Your task to perform on an android device: Go to Amazon Image 0: 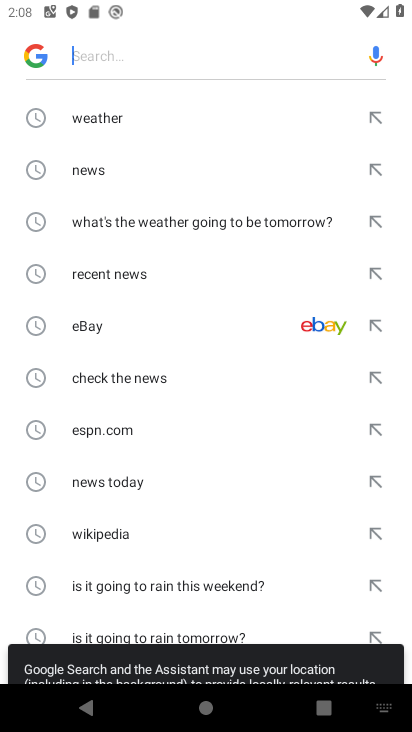
Step 0: press home button
Your task to perform on an android device: Go to Amazon Image 1: 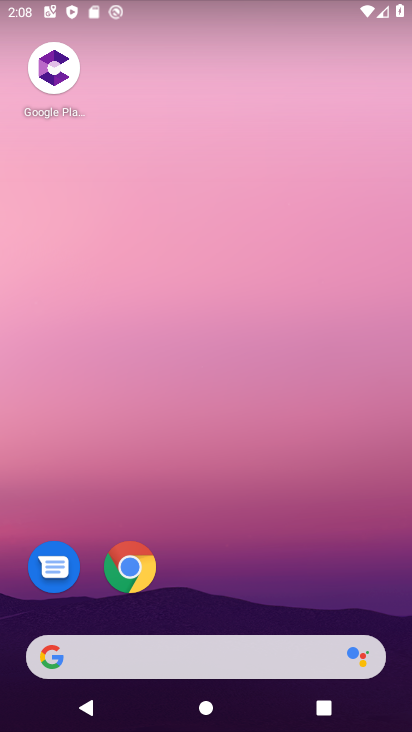
Step 1: click (142, 568)
Your task to perform on an android device: Go to Amazon Image 2: 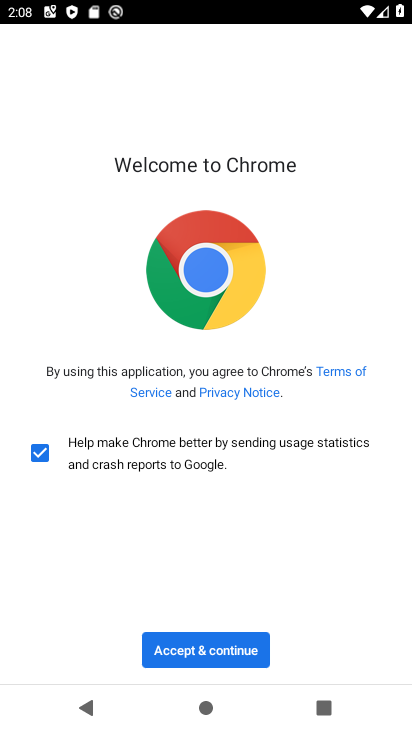
Step 2: click (189, 652)
Your task to perform on an android device: Go to Amazon Image 3: 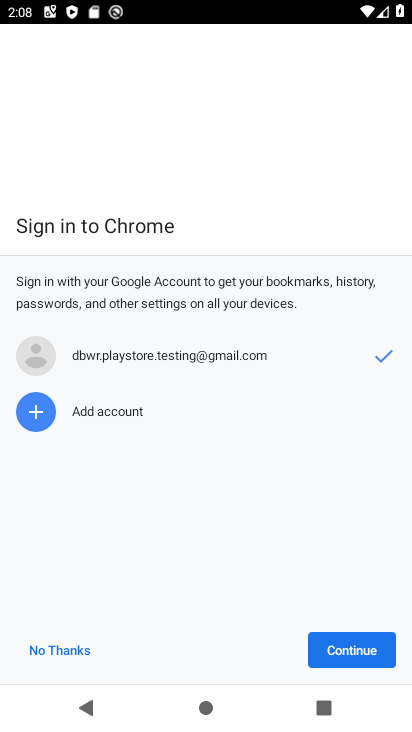
Step 3: click (334, 655)
Your task to perform on an android device: Go to Amazon Image 4: 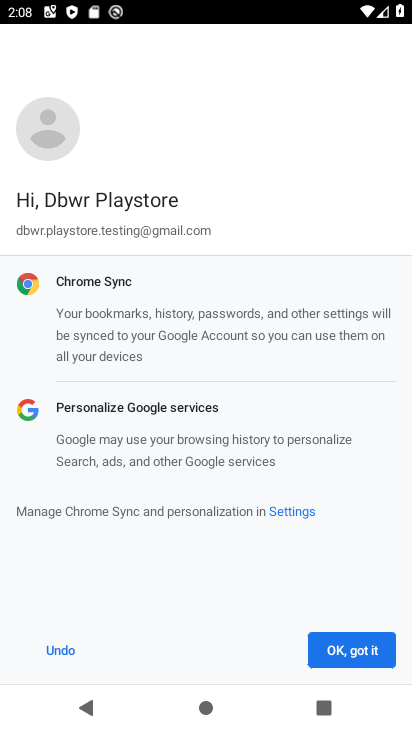
Step 4: click (336, 655)
Your task to perform on an android device: Go to Amazon Image 5: 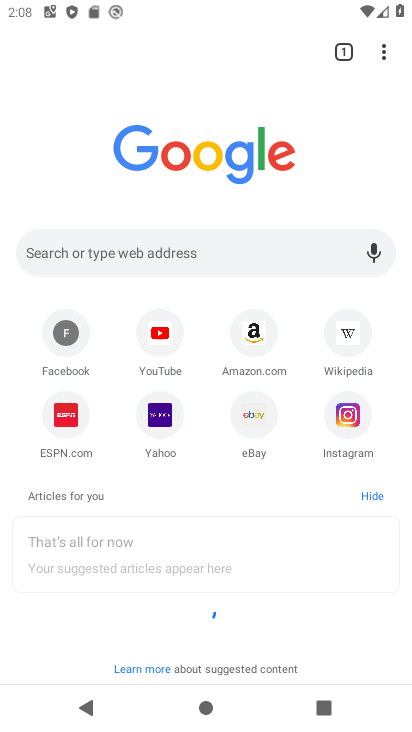
Step 5: click (262, 352)
Your task to perform on an android device: Go to Amazon Image 6: 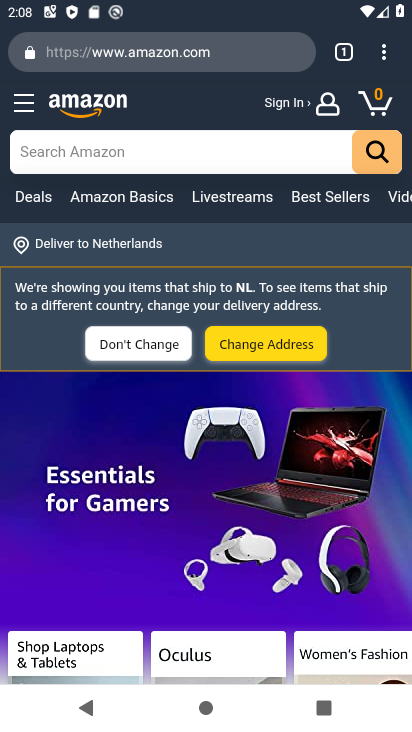
Step 6: task complete